Your task to perform on an android device: toggle notifications settings in the gmail app Image 0: 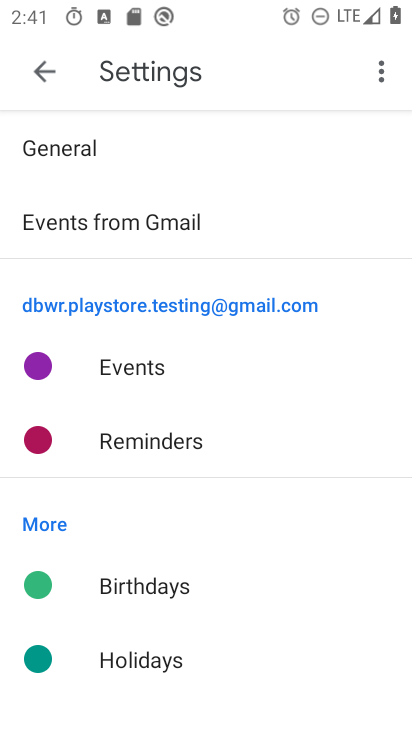
Step 0: press home button
Your task to perform on an android device: toggle notifications settings in the gmail app Image 1: 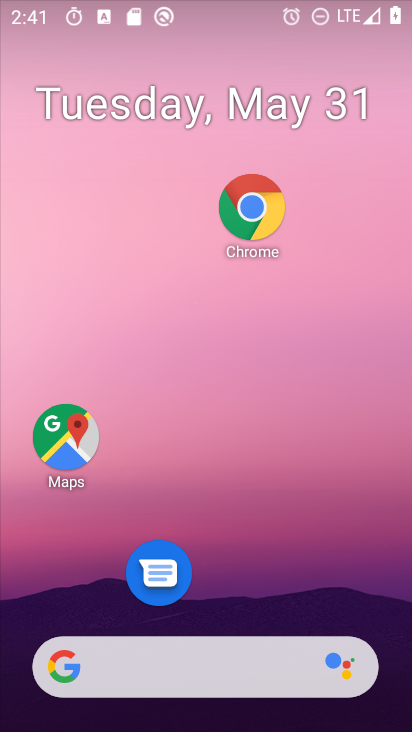
Step 1: drag from (192, 690) to (264, 127)
Your task to perform on an android device: toggle notifications settings in the gmail app Image 2: 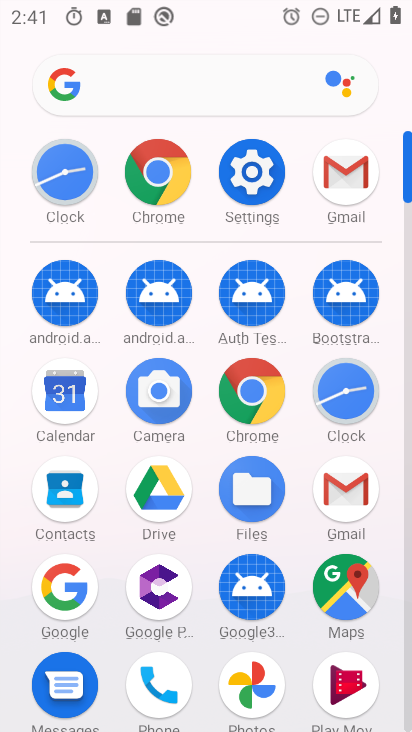
Step 2: click (362, 489)
Your task to perform on an android device: toggle notifications settings in the gmail app Image 3: 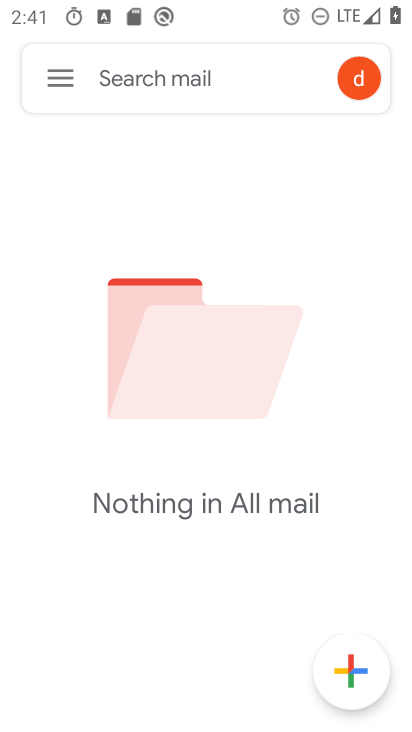
Step 3: click (60, 88)
Your task to perform on an android device: toggle notifications settings in the gmail app Image 4: 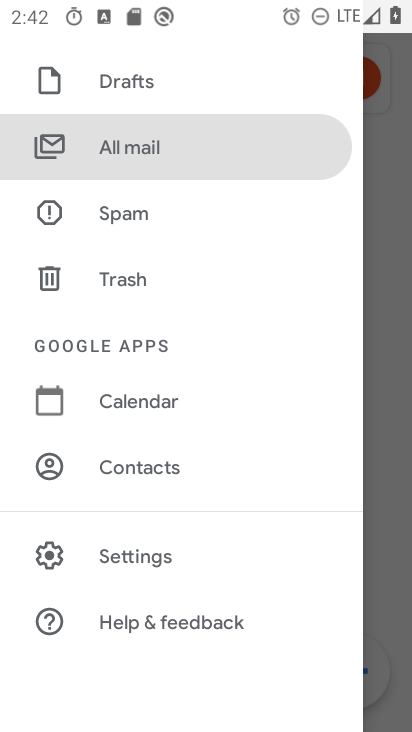
Step 4: click (191, 553)
Your task to perform on an android device: toggle notifications settings in the gmail app Image 5: 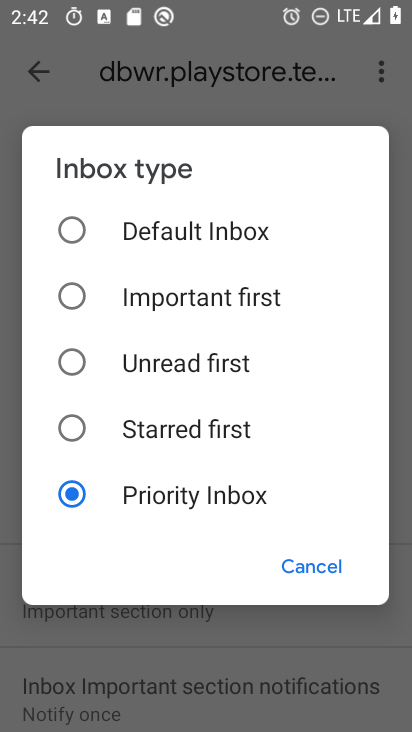
Step 5: click (315, 573)
Your task to perform on an android device: toggle notifications settings in the gmail app Image 6: 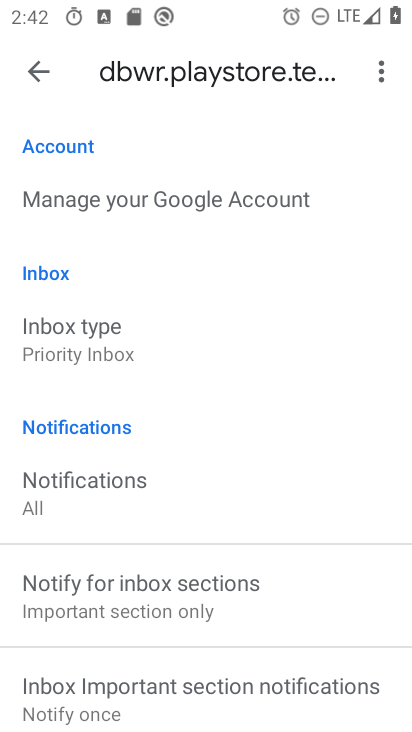
Step 6: click (56, 75)
Your task to perform on an android device: toggle notifications settings in the gmail app Image 7: 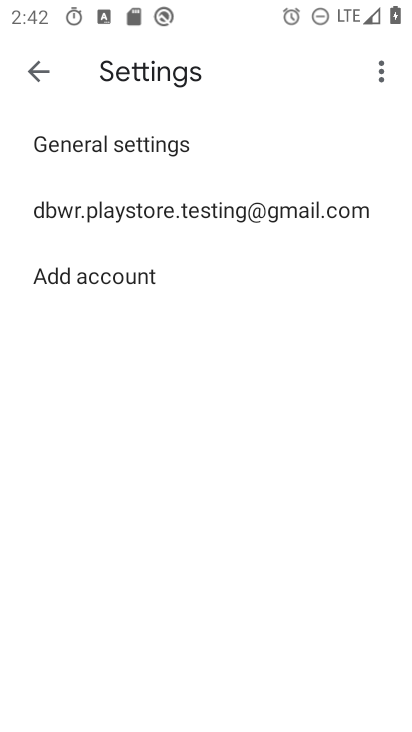
Step 7: click (145, 152)
Your task to perform on an android device: toggle notifications settings in the gmail app Image 8: 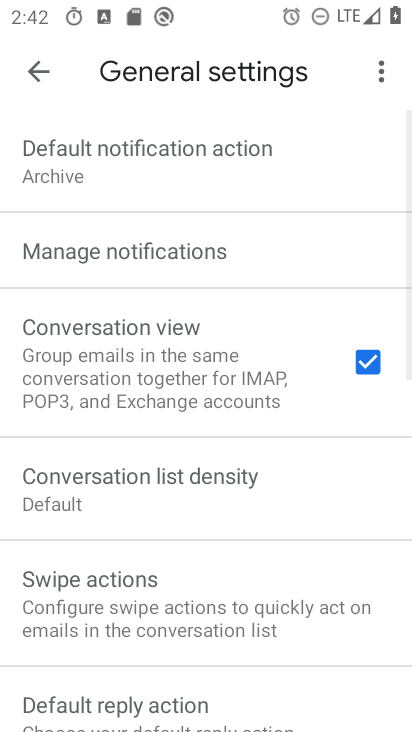
Step 8: click (132, 254)
Your task to perform on an android device: toggle notifications settings in the gmail app Image 9: 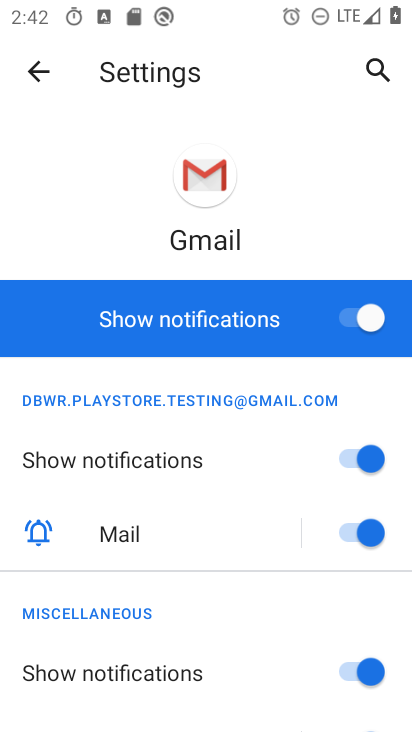
Step 9: click (356, 322)
Your task to perform on an android device: toggle notifications settings in the gmail app Image 10: 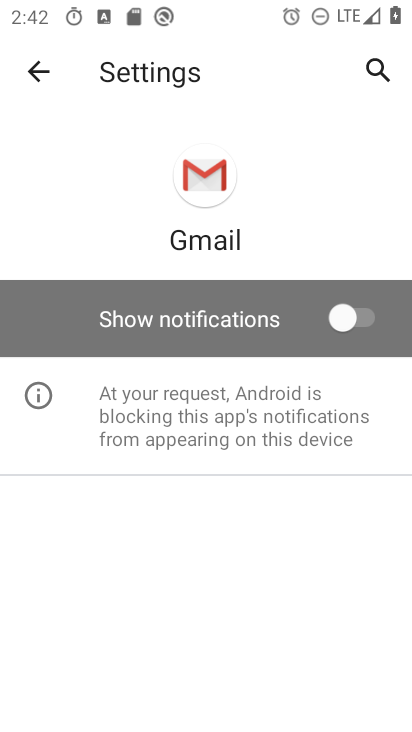
Step 10: task complete